Your task to perform on an android device: open chrome privacy settings Image 0: 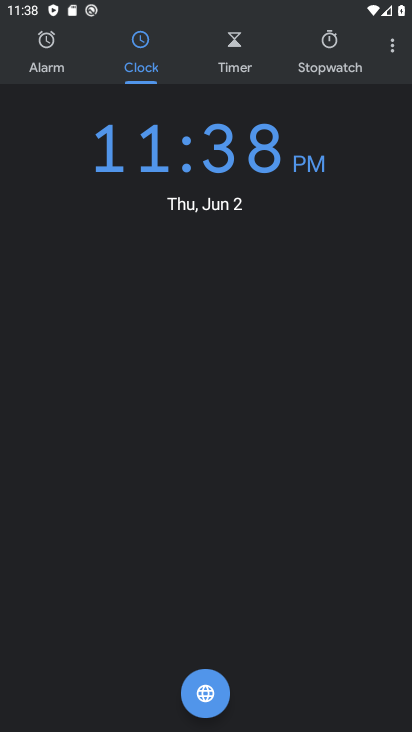
Step 0: press home button
Your task to perform on an android device: open chrome privacy settings Image 1: 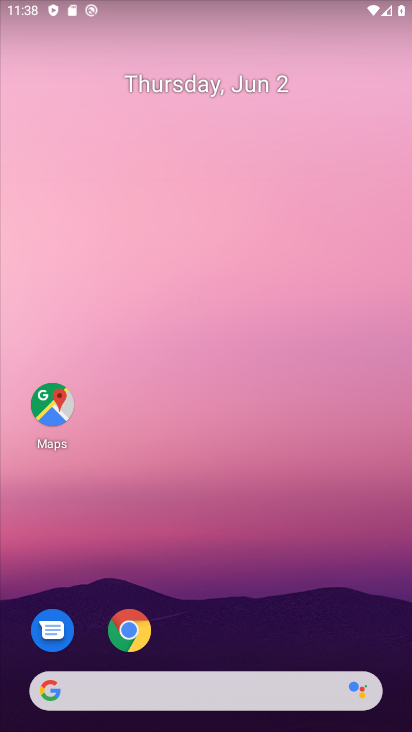
Step 1: drag from (261, 621) to (229, 155)
Your task to perform on an android device: open chrome privacy settings Image 2: 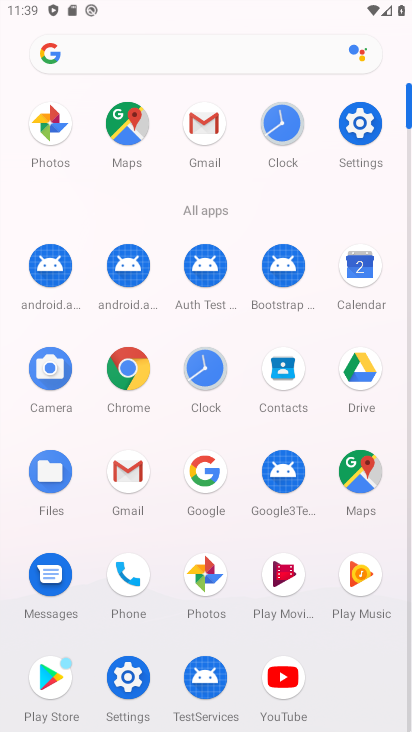
Step 2: click (130, 369)
Your task to perform on an android device: open chrome privacy settings Image 3: 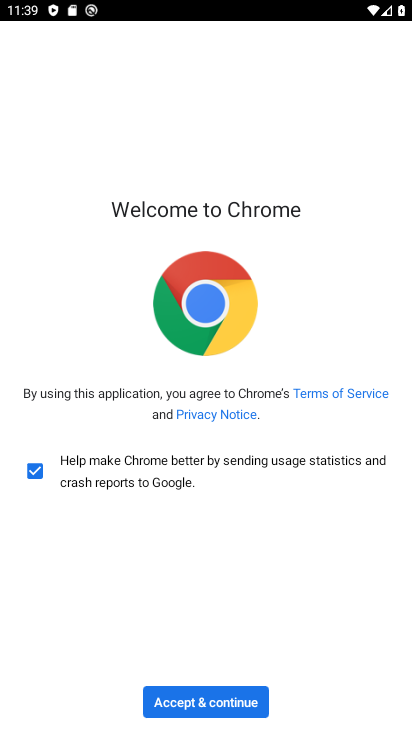
Step 3: click (188, 699)
Your task to perform on an android device: open chrome privacy settings Image 4: 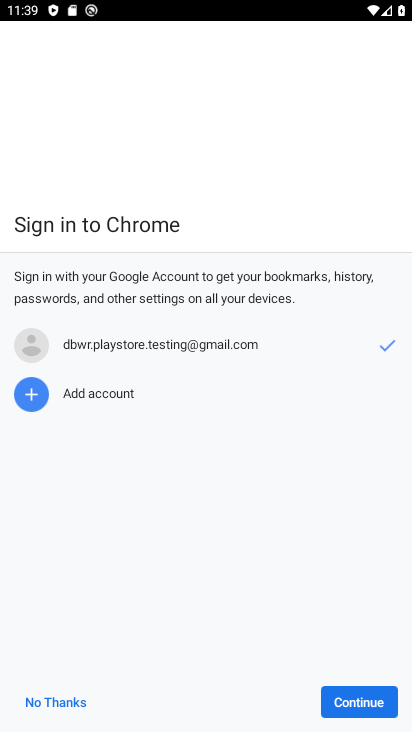
Step 4: click (337, 709)
Your task to perform on an android device: open chrome privacy settings Image 5: 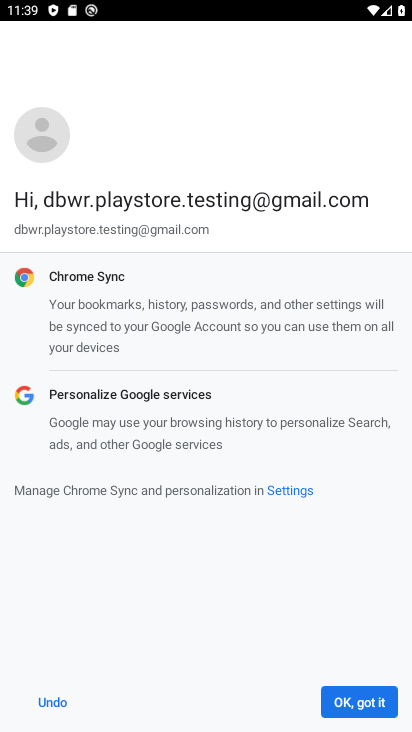
Step 5: click (337, 709)
Your task to perform on an android device: open chrome privacy settings Image 6: 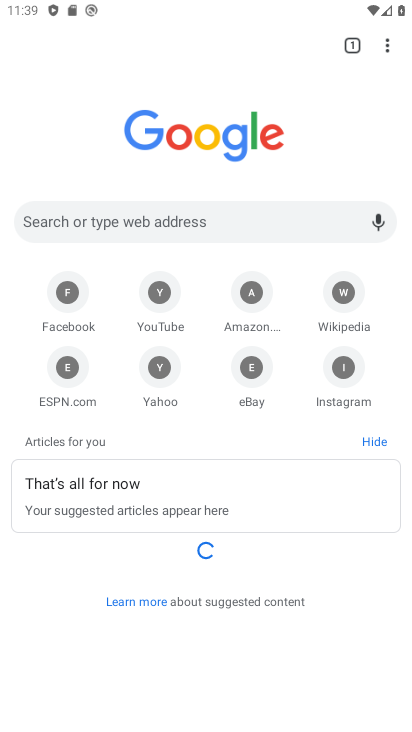
Step 6: click (379, 53)
Your task to perform on an android device: open chrome privacy settings Image 7: 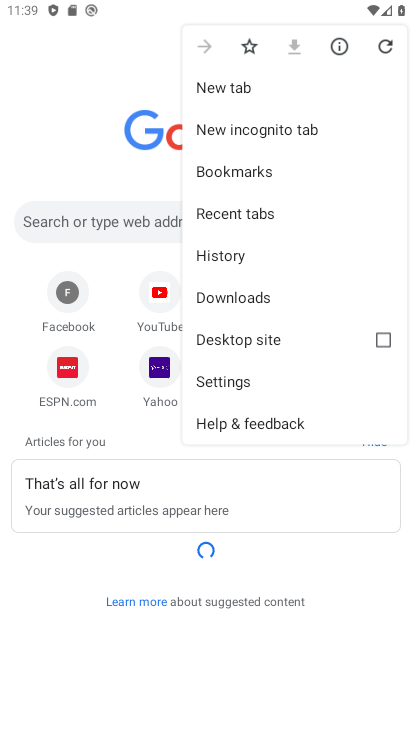
Step 7: click (250, 381)
Your task to perform on an android device: open chrome privacy settings Image 8: 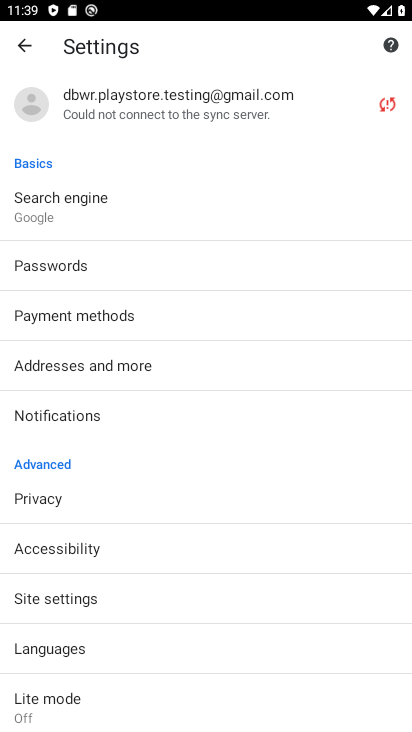
Step 8: click (112, 483)
Your task to perform on an android device: open chrome privacy settings Image 9: 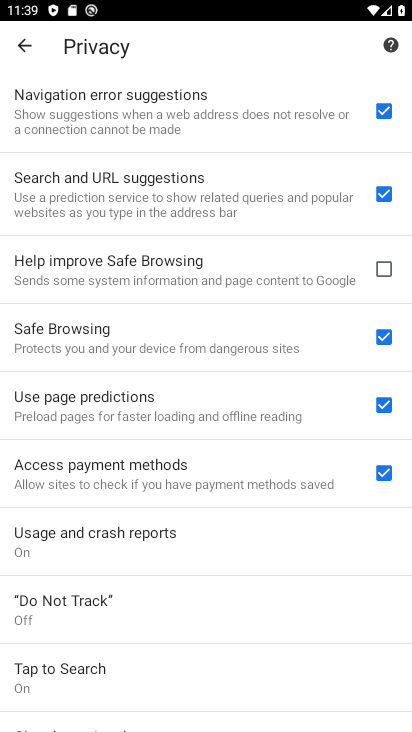
Step 9: task complete